Your task to perform on an android device: Open sound settings Image 0: 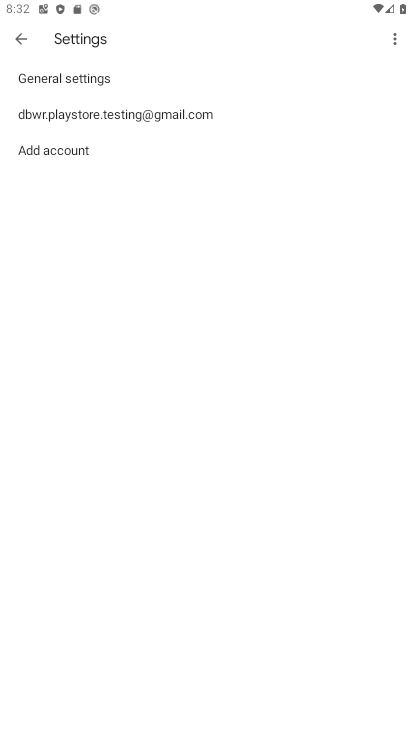
Step 0: press back button
Your task to perform on an android device: Open sound settings Image 1: 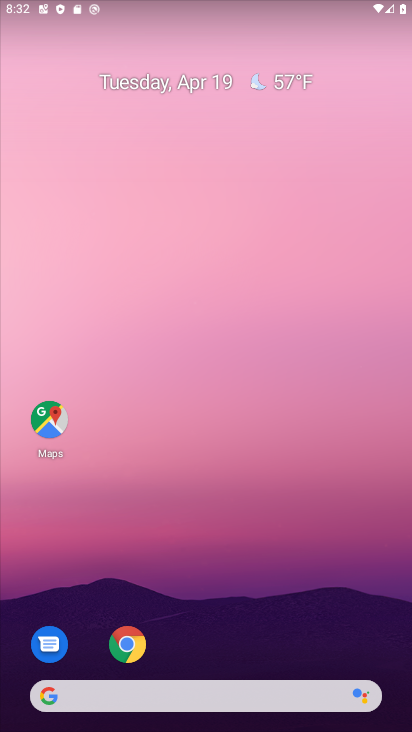
Step 1: drag from (201, 677) to (308, 87)
Your task to perform on an android device: Open sound settings Image 2: 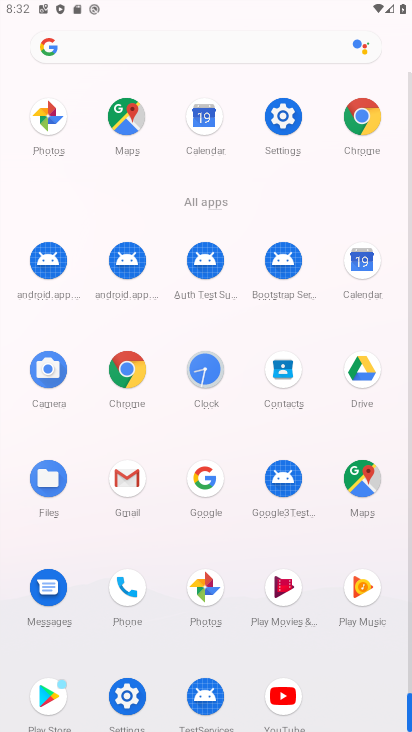
Step 2: click (284, 122)
Your task to perform on an android device: Open sound settings Image 3: 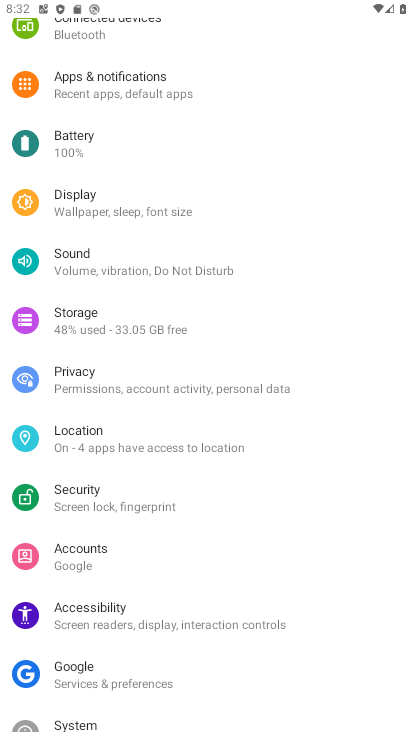
Step 3: click (98, 260)
Your task to perform on an android device: Open sound settings Image 4: 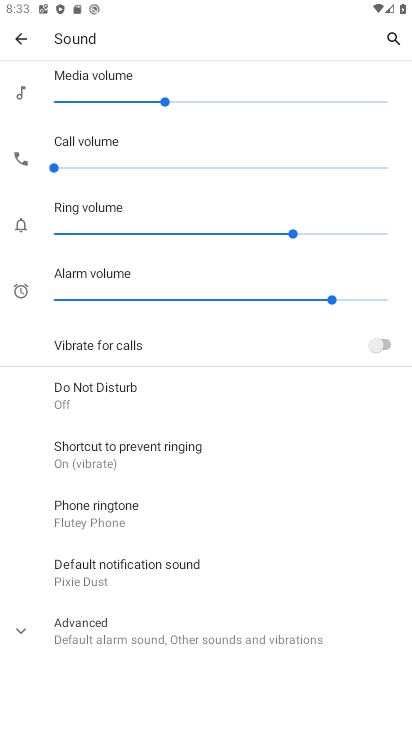
Step 4: task complete